Your task to perform on an android device: turn on showing notifications on the lock screen Image 0: 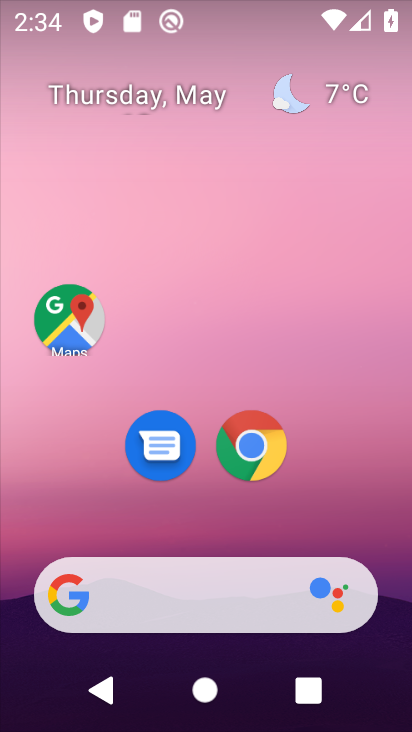
Step 0: drag from (357, 535) to (378, 1)
Your task to perform on an android device: turn on showing notifications on the lock screen Image 1: 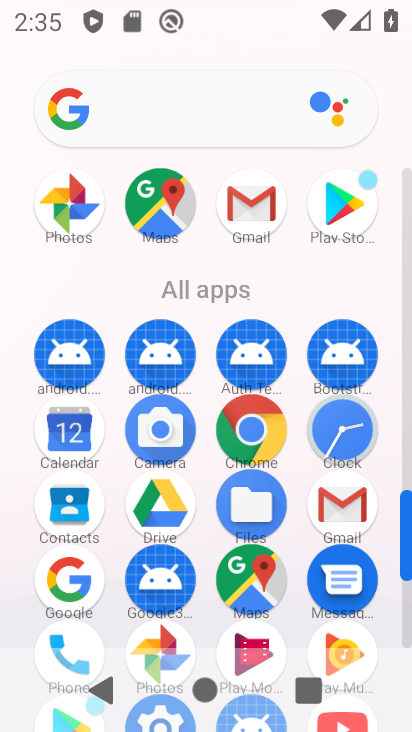
Step 1: drag from (407, 527) to (406, 460)
Your task to perform on an android device: turn on showing notifications on the lock screen Image 2: 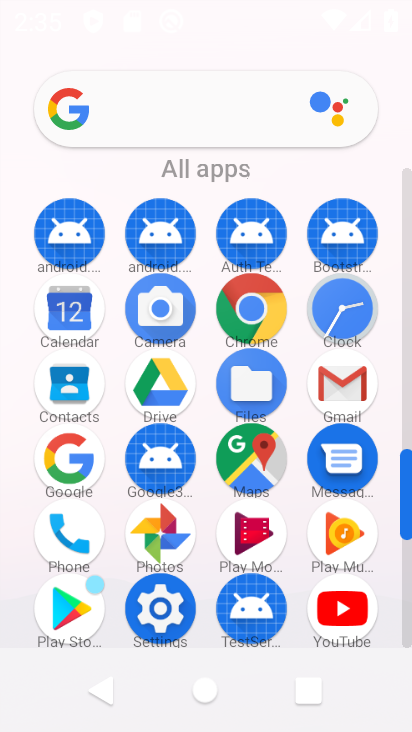
Step 2: click (167, 605)
Your task to perform on an android device: turn on showing notifications on the lock screen Image 3: 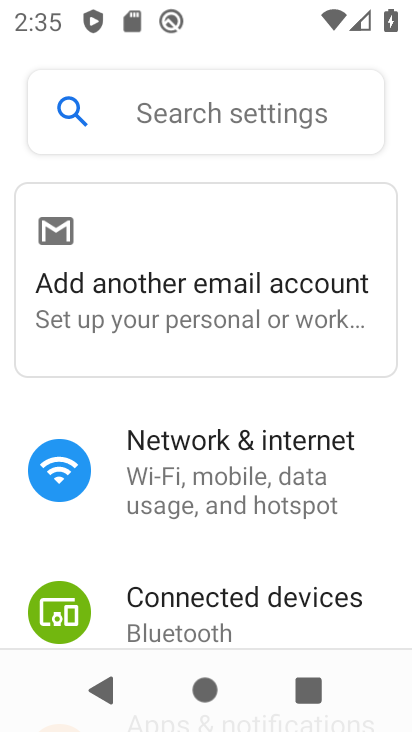
Step 3: drag from (196, 601) to (210, 274)
Your task to perform on an android device: turn on showing notifications on the lock screen Image 4: 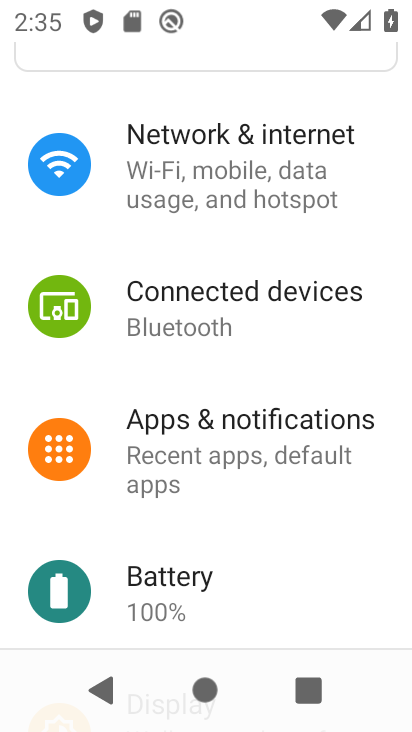
Step 4: click (209, 427)
Your task to perform on an android device: turn on showing notifications on the lock screen Image 5: 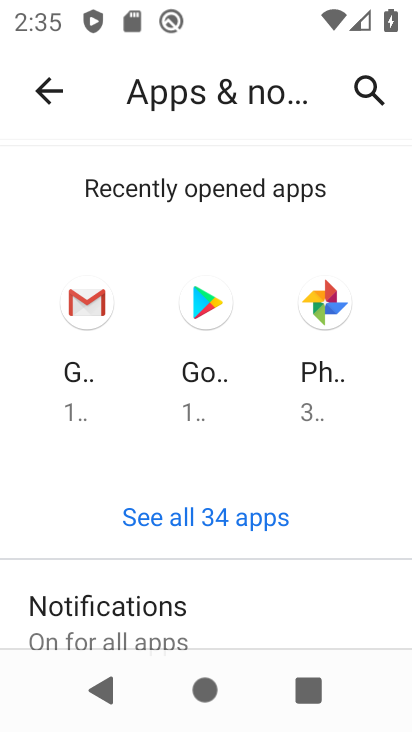
Step 5: drag from (209, 560) to (222, 278)
Your task to perform on an android device: turn on showing notifications on the lock screen Image 6: 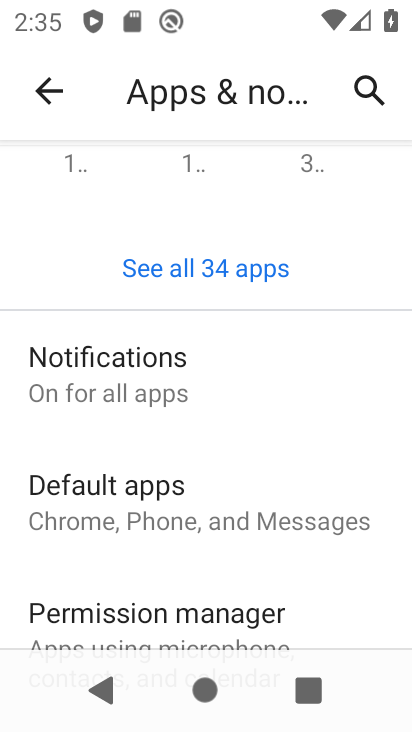
Step 6: click (120, 383)
Your task to perform on an android device: turn on showing notifications on the lock screen Image 7: 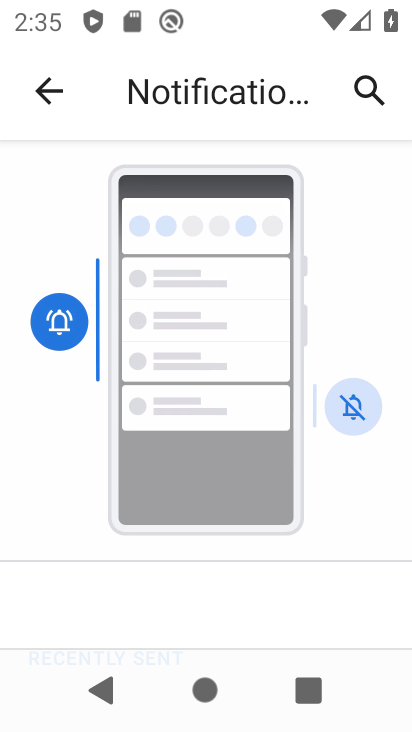
Step 7: drag from (208, 573) to (203, 188)
Your task to perform on an android device: turn on showing notifications on the lock screen Image 8: 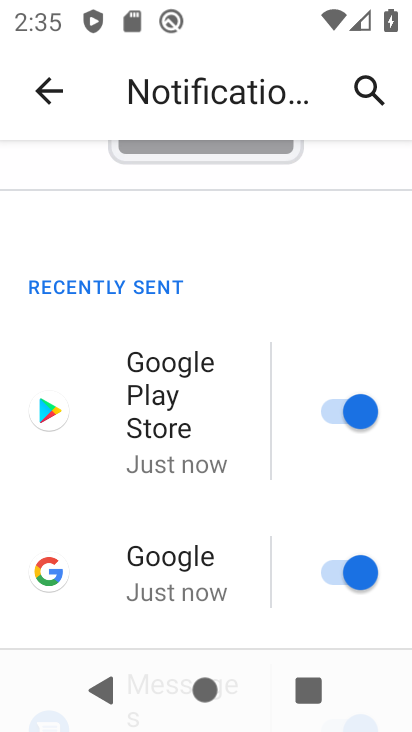
Step 8: drag from (189, 501) to (168, 183)
Your task to perform on an android device: turn on showing notifications on the lock screen Image 9: 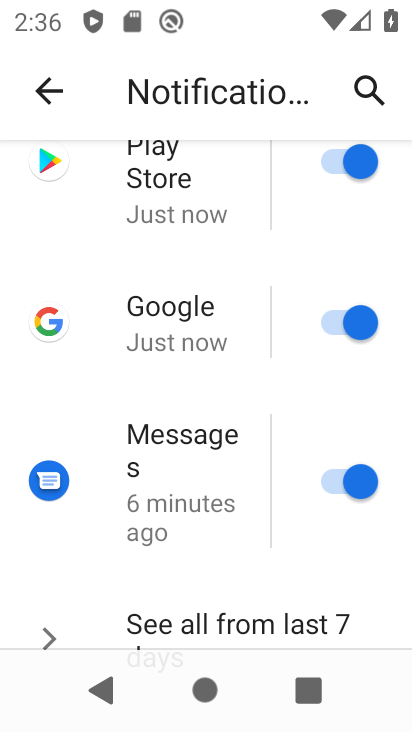
Step 9: drag from (206, 531) to (203, 125)
Your task to perform on an android device: turn on showing notifications on the lock screen Image 10: 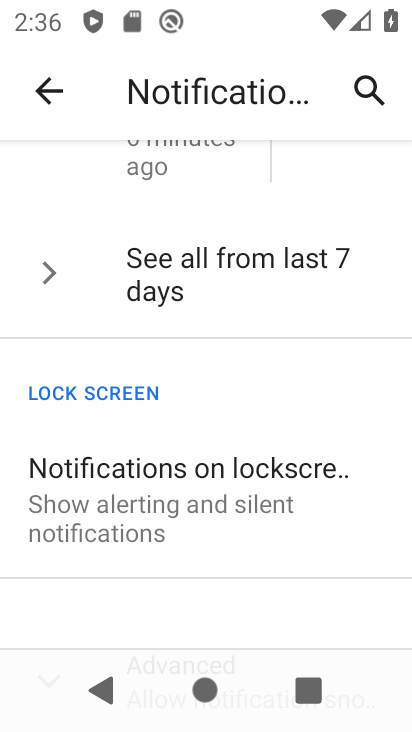
Step 10: click (156, 494)
Your task to perform on an android device: turn on showing notifications on the lock screen Image 11: 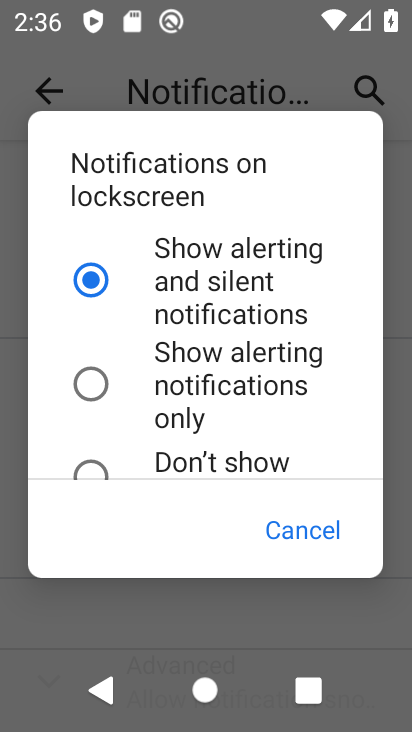
Step 11: task complete